Your task to perform on an android device: change notifications settings Image 0: 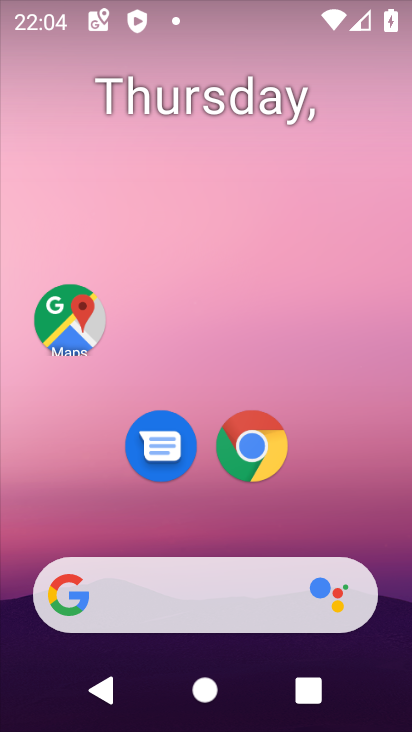
Step 0: drag from (361, 496) to (344, 13)
Your task to perform on an android device: change notifications settings Image 1: 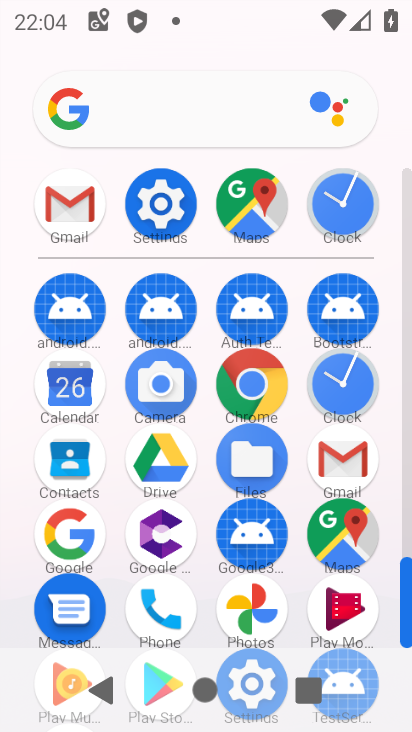
Step 1: click (172, 215)
Your task to perform on an android device: change notifications settings Image 2: 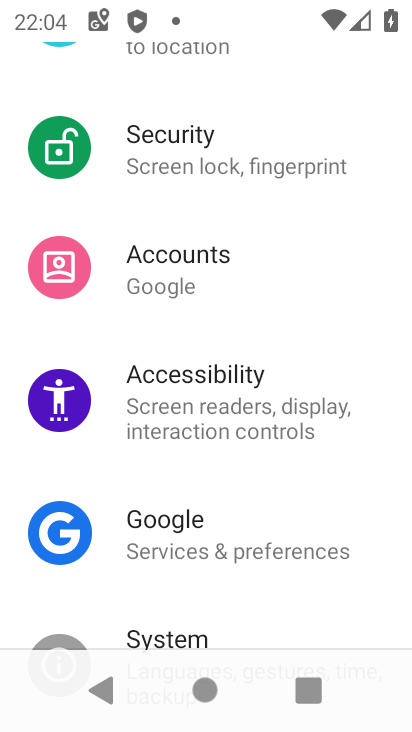
Step 2: drag from (288, 129) to (283, 721)
Your task to perform on an android device: change notifications settings Image 3: 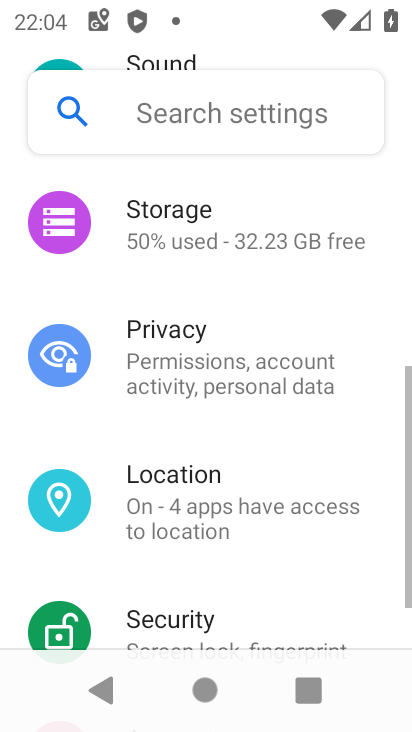
Step 3: drag from (294, 235) to (325, 725)
Your task to perform on an android device: change notifications settings Image 4: 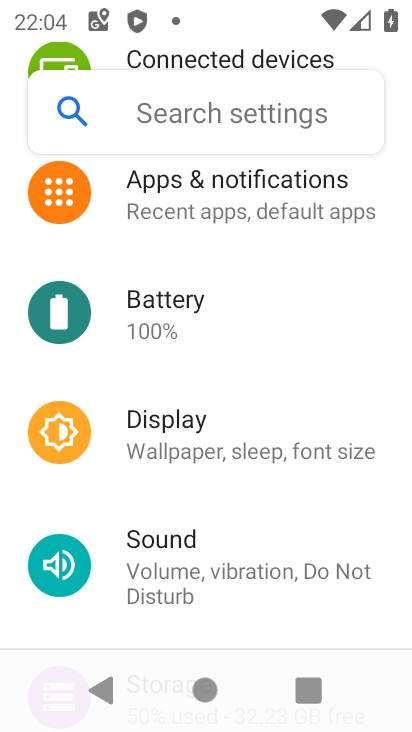
Step 4: click (239, 211)
Your task to perform on an android device: change notifications settings Image 5: 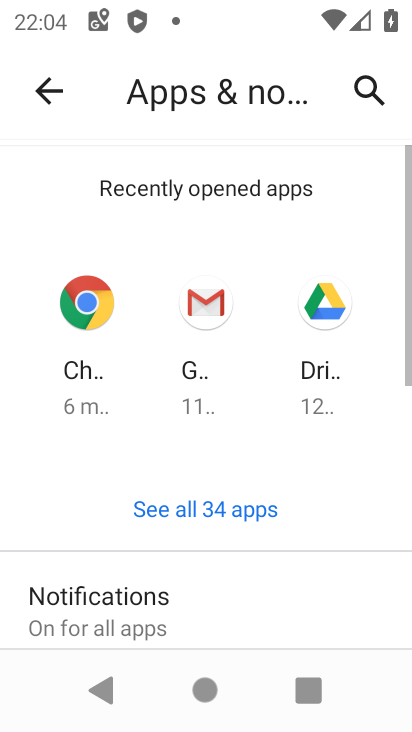
Step 5: task complete